Your task to perform on an android device: What's the weather today? Image 0: 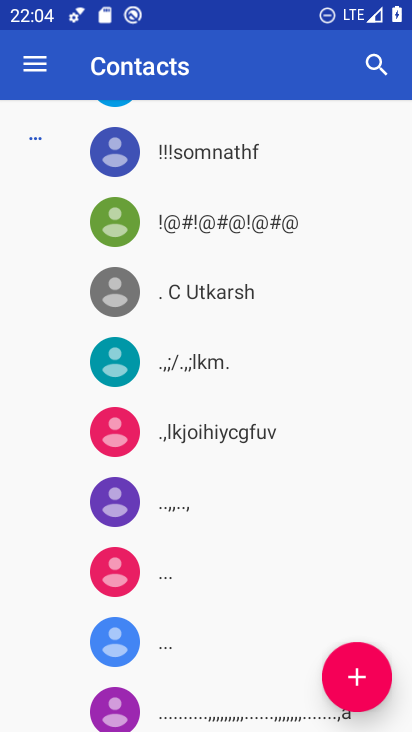
Step 0: press home button
Your task to perform on an android device: What's the weather today? Image 1: 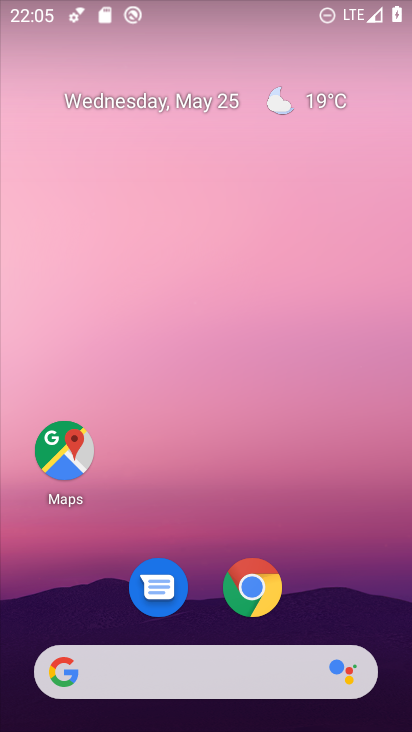
Step 1: click (312, 105)
Your task to perform on an android device: What's the weather today? Image 2: 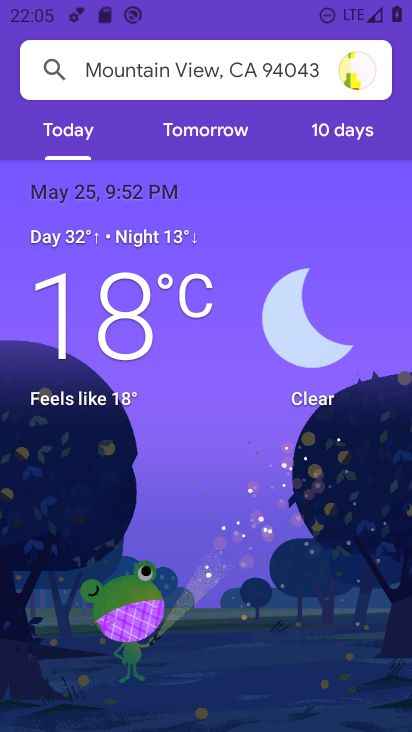
Step 2: drag from (259, 629) to (253, 210)
Your task to perform on an android device: What's the weather today? Image 3: 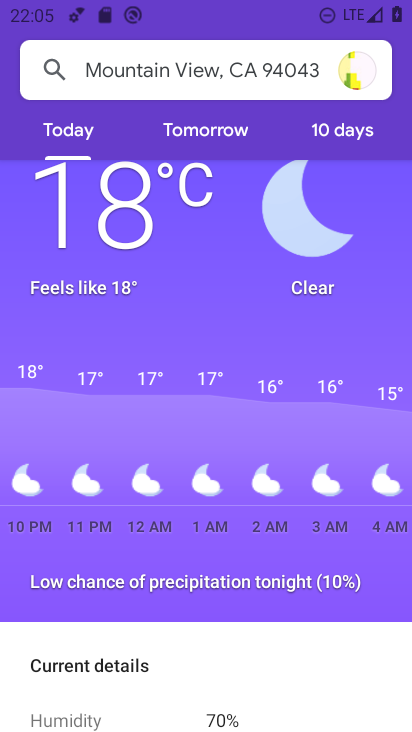
Step 3: drag from (399, 505) to (9, 441)
Your task to perform on an android device: What's the weather today? Image 4: 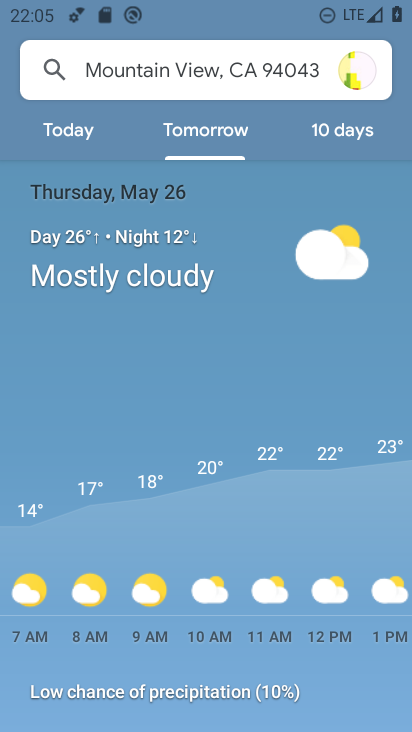
Step 4: click (68, 139)
Your task to perform on an android device: What's the weather today? Image 5: 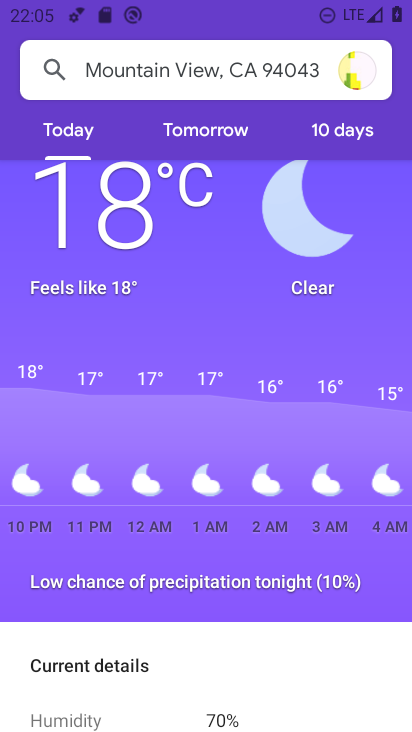
Step 5: task complete